Your task to perform on an android device: Open Maps and search for coffee Image 0: 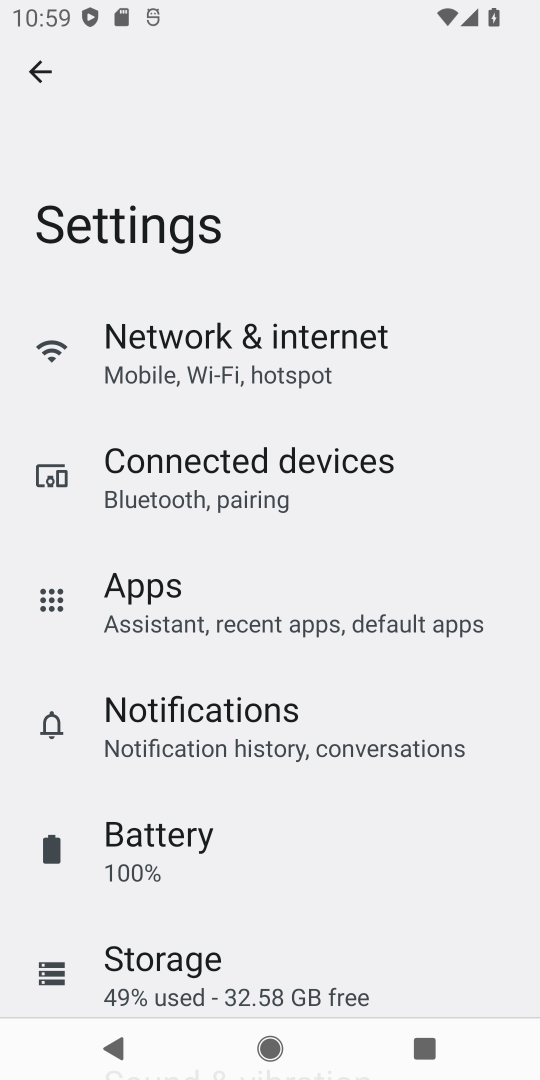
Step 0: press home button
Your task to perform on an android device: Open Maps and search for coffee Image 1: 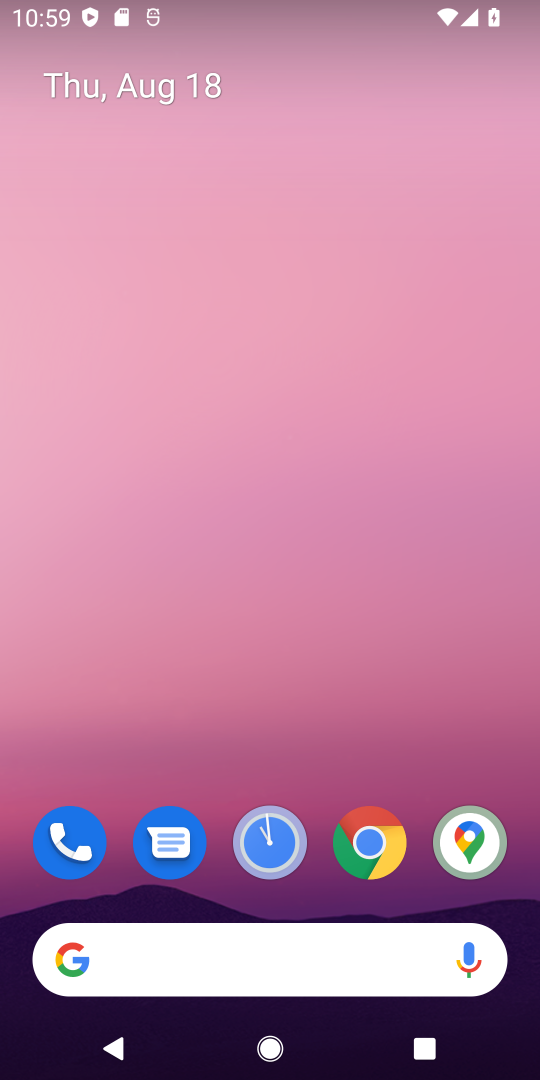
Step 1: click (459, 846)
Your task to perform on an android device: Open Maps and search for coffee Image 2: 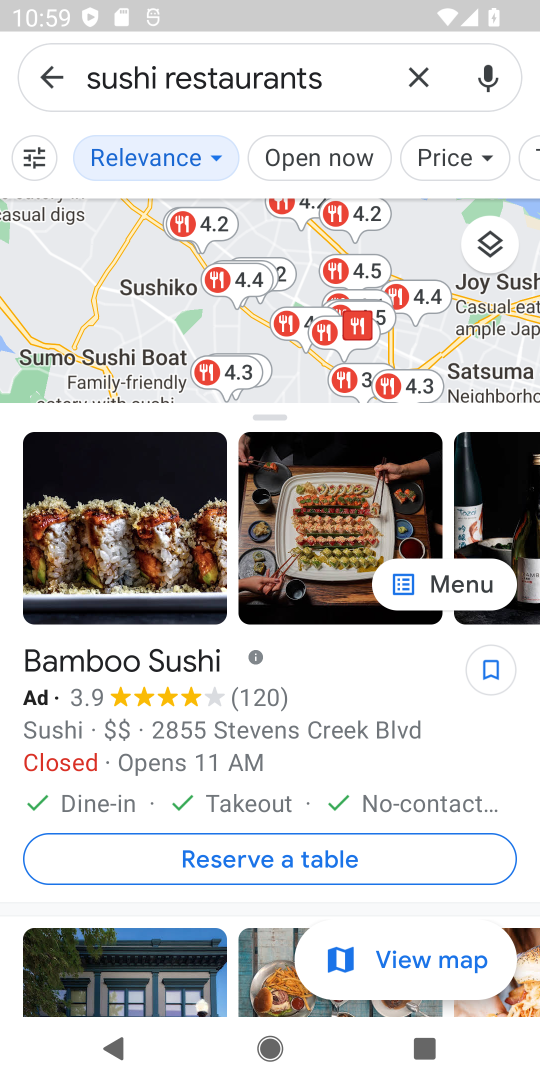
Step 2: click (422, 72)
Your task to perform on an android device: Open Maps and search for coffee Image 3: 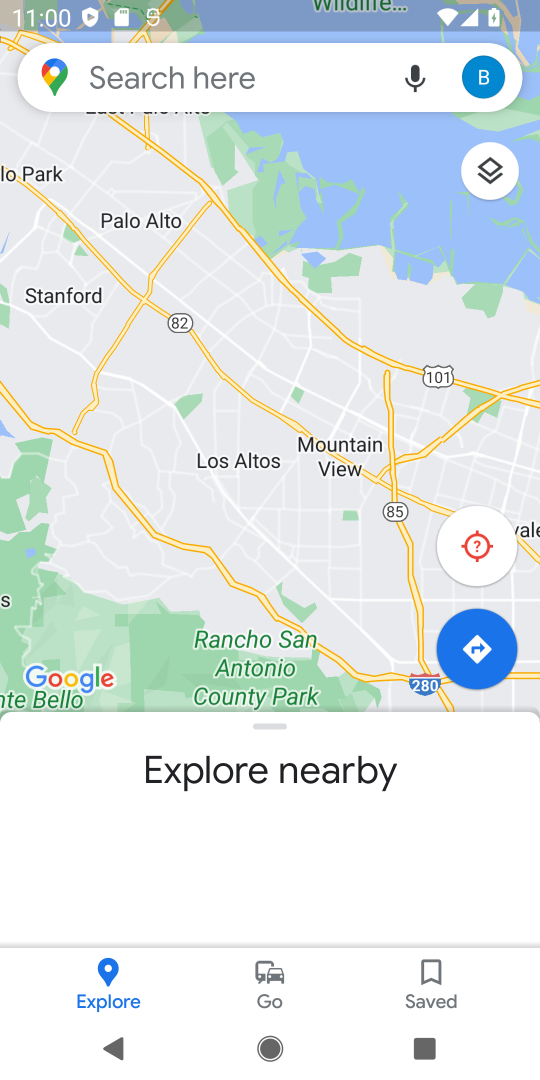
Step 3: click (275, 71)
Your task to perform on an android device: Open Maps and search for coffee Image 4: 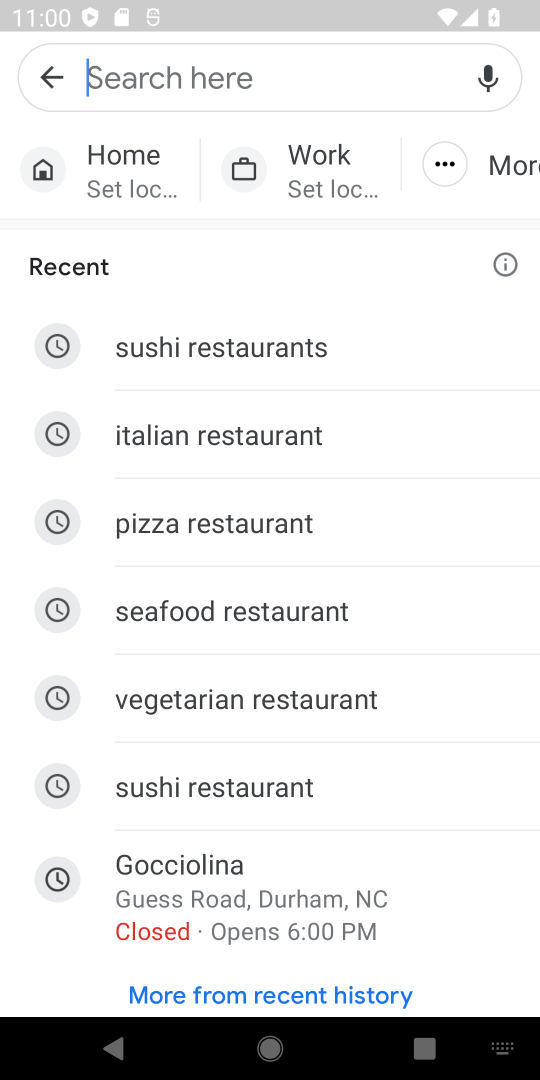
Step 4: type "coffee"
Your task to perform on an android device: Open Maps and search for coffee Image 5: 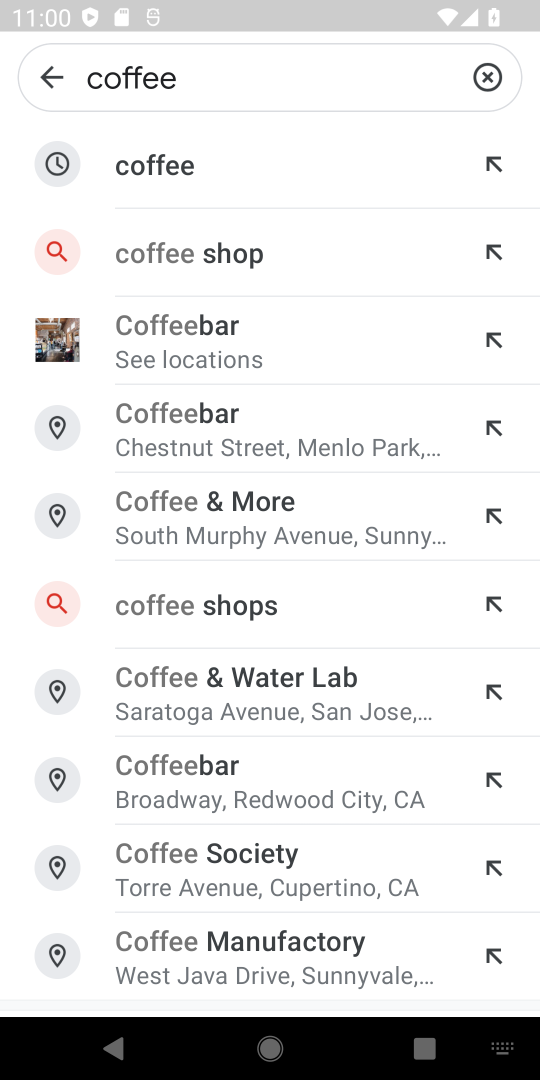
Step 5: click (299, 192)
Your task to perform on an android device: Open Maps and search for coffee Image 6: 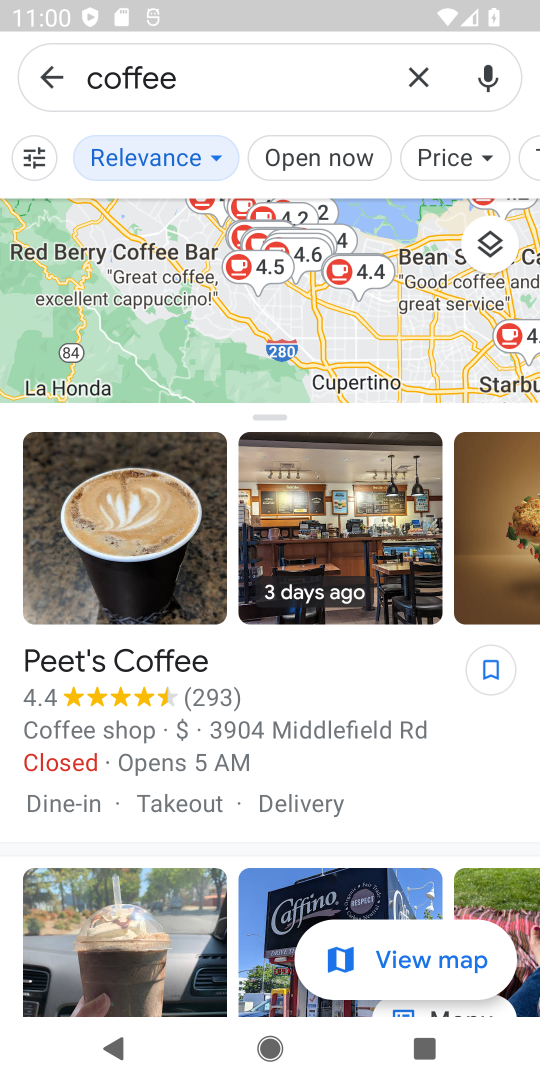
Step 6: task complete